Your task to perform on an android device: clear all cookies in the chrome app Image 0: 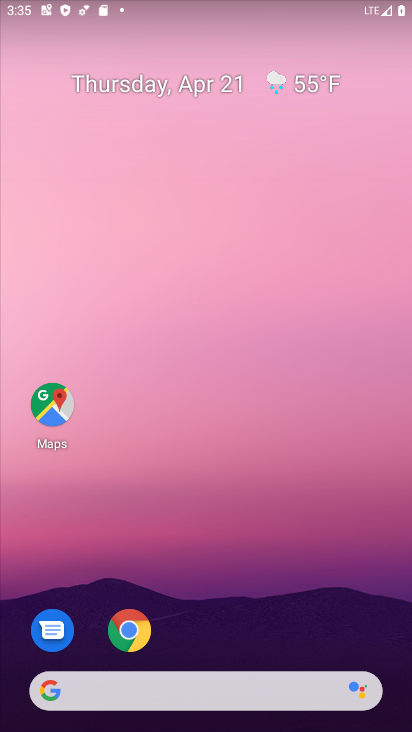
Step 0: click (123, 632)
Your task to perform on an android device: clear all cookies in the chrome app Image 1: 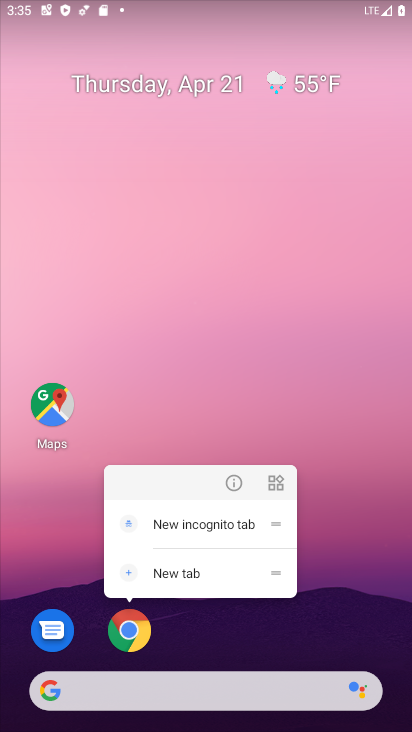
Step 1: click (133, 625)
Your task to perform on an android device: clear all cookies in the chrome app Image 2: 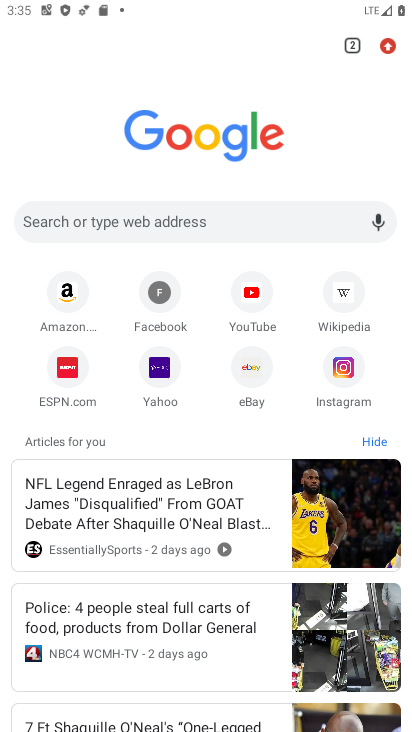
Step 2: click (394, 45)
Your task to perform on an android device: clear all cookies in the chrome app Image 3: 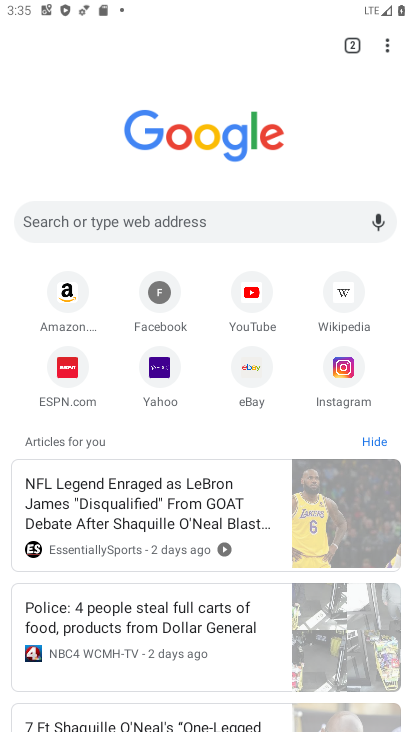
Step 3: drag from (386, 47) to (237, 310)
Your task to perform on an android device: clear all cookies in the chrome app Image 4: 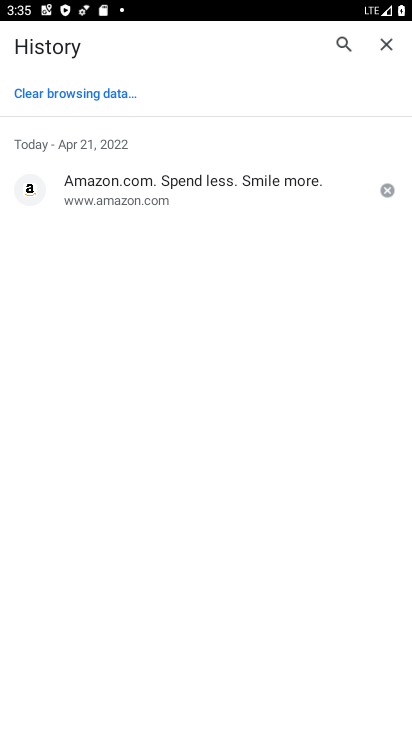
Step 4: click (119, 94)
Your task to perform on an android device: clear all cookies in the chrome app Image 5: 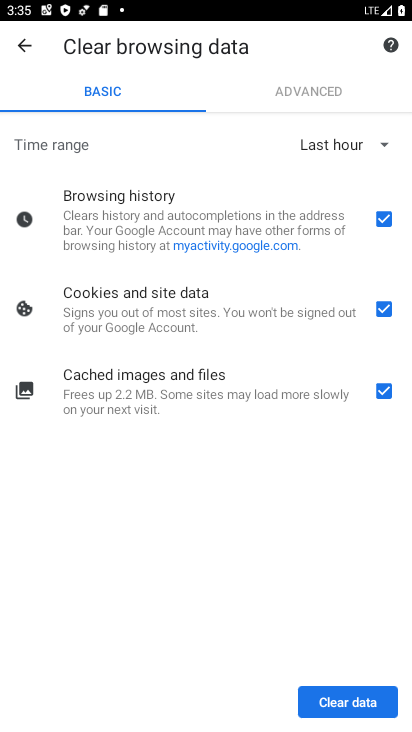
Step 5: click (332, 710)
Your task to perform on an android device: clear all cookies in the chrome app Image 6: 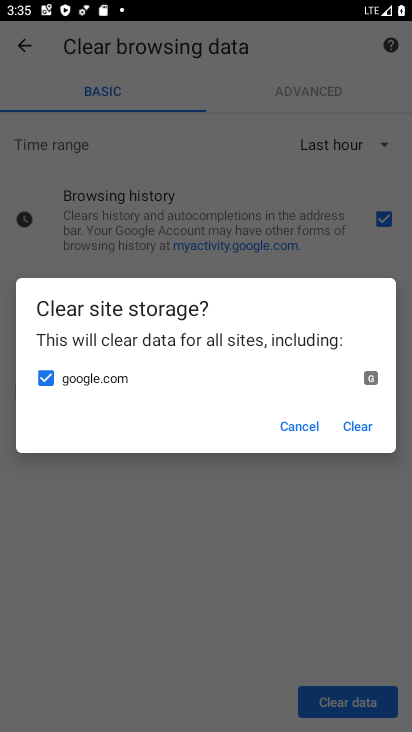
Step 6: click (350, 432)
Your task to perform on an android device: clear all cookies in the chrome app Image 7: 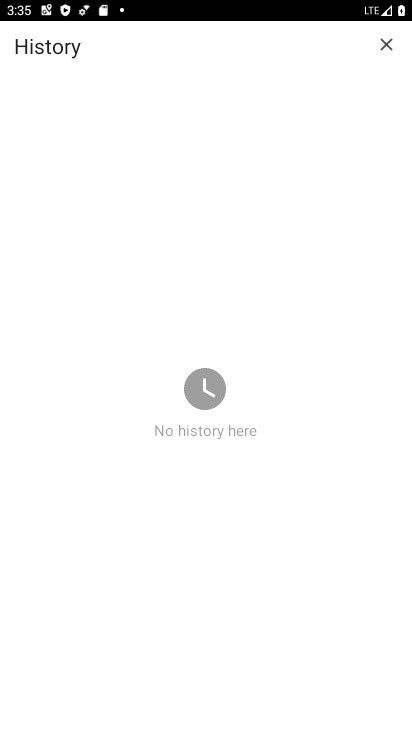
Step 7: task complete